Your task to perform on an android device: set default search engine in the chrome app Image 0: 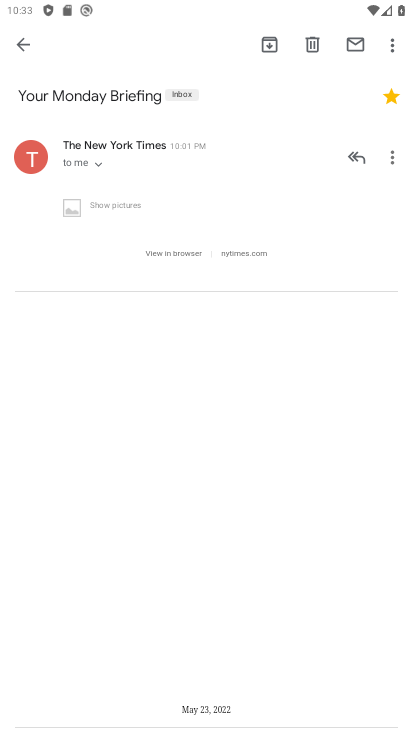
Step 0: press back button
Your task to perform on an android device: set default search engine in the chrome app Image 1: 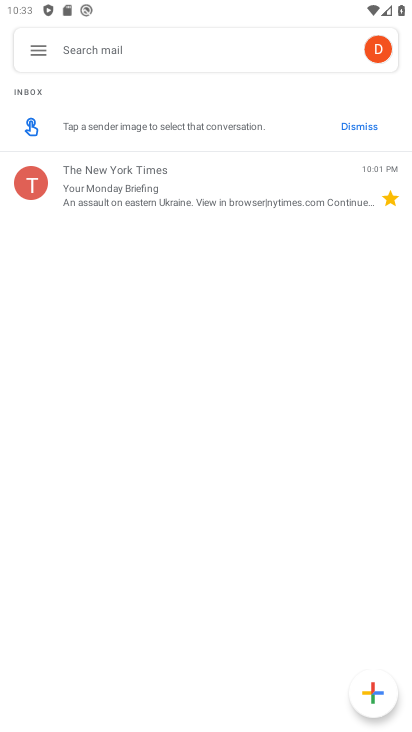
Step 1: press back button
Your task to perform on an android device: set default search engine in the chrome app Image 2: 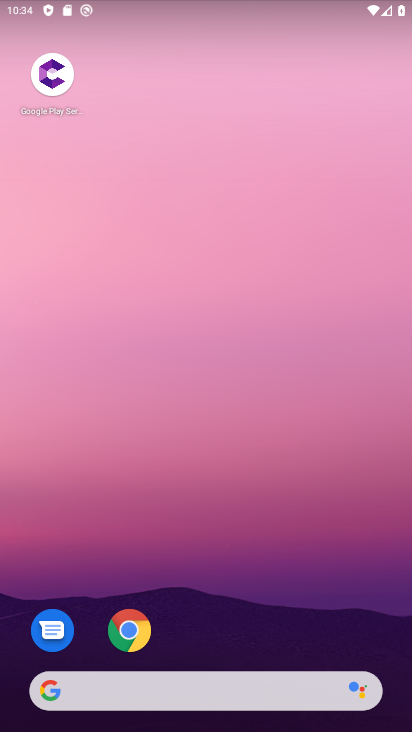
Step 2: click (129, 630)
Your task to perform on an android device: set default search engine in the chrome app Image 3: 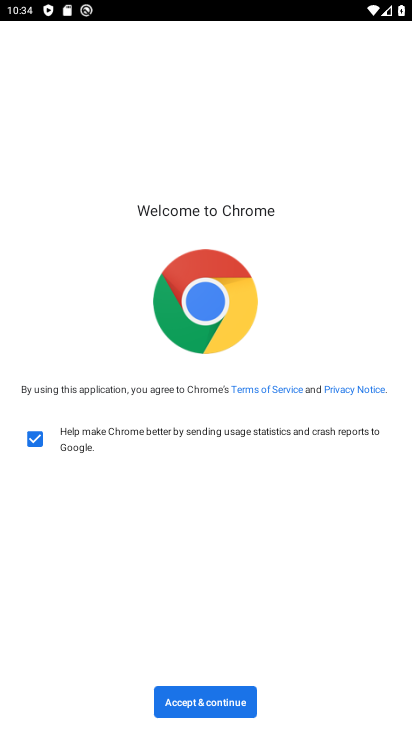
Step 3: click (191, 700)
Your task to perform on an android device: set default search engine in the chrome app Image 4: 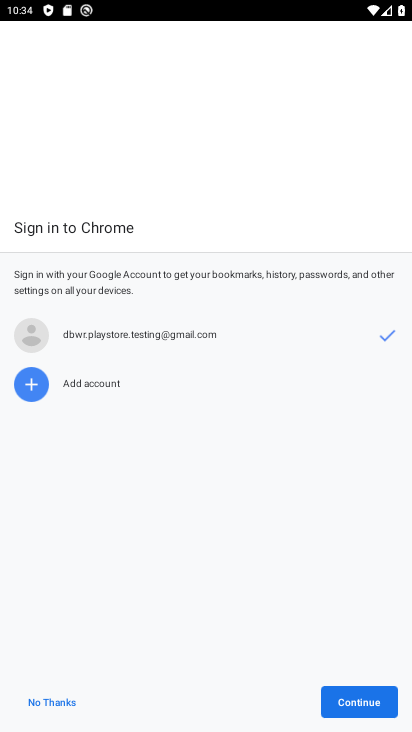
Step 4: click (359, 706)
Your task to perform on an android device: set default search engine in the chrome app Image 5: 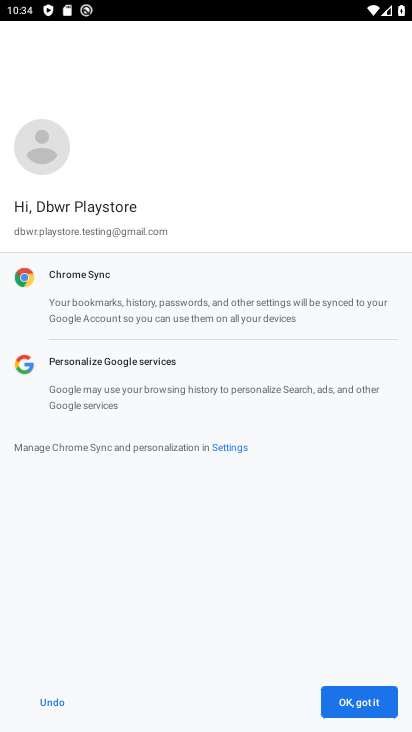
Step 5: click (359, 706)
Your task to perform on an android device: set default search engine in the chrome app Image 6: 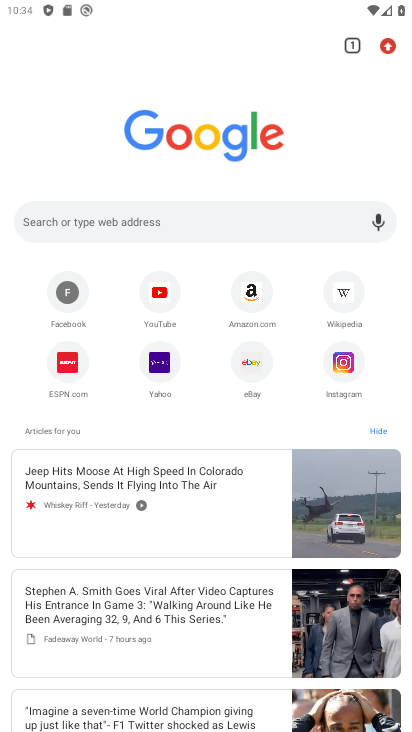
Step 6: click (388, 45)
Your task to perform on an android device: set default search engine in the chrome app Image 7: 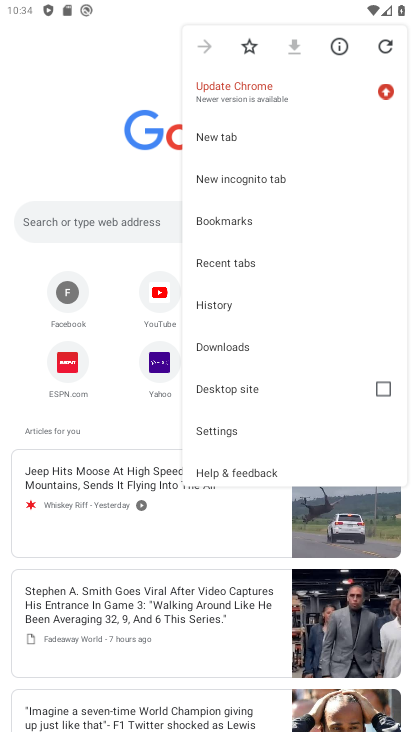
Step 7: drag from (230, 409) to (242, 356)
Your task to perform on an android device: set default search engine in the chrome app Image 8: 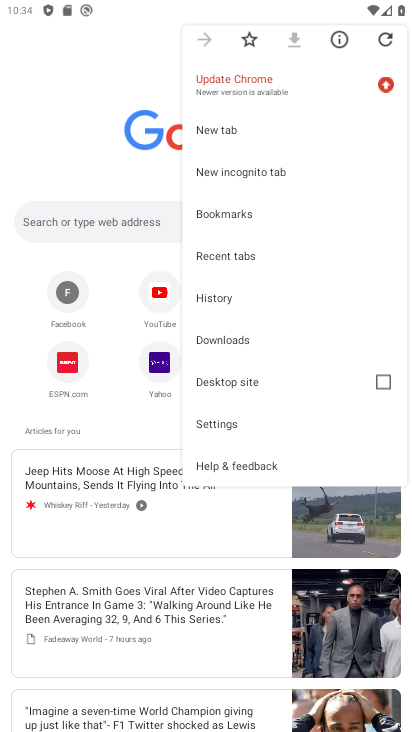
Step 8: click (233, 430)
Your task to perform on an android device: set default search engine in the chrome app Image 9: 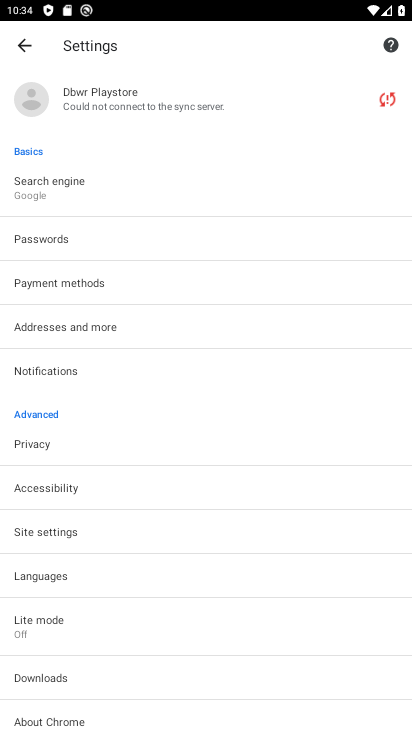
Step 9: click (85, 187)
Your task to perform on an android device: set default search engine in the chrome app Image 10: 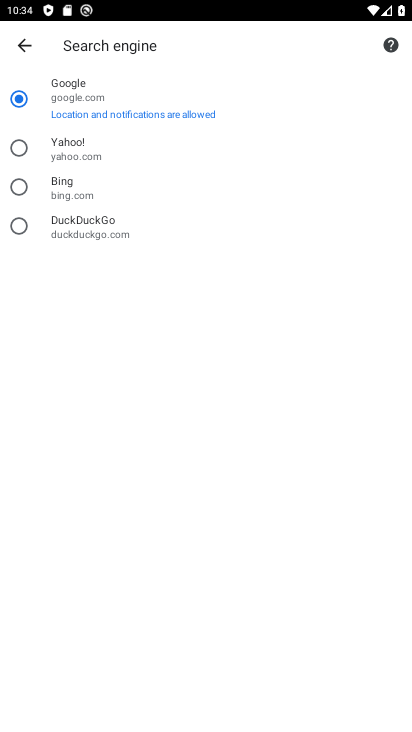
Step 10: click (14, 182)
Your task to perform on an android device: set default search engine in the chrome app Image 11: 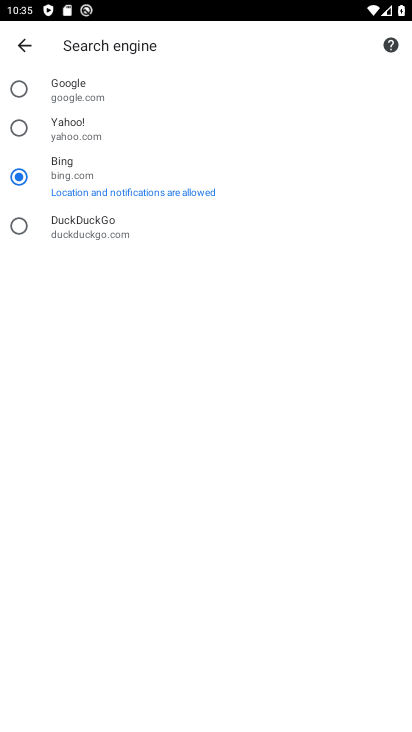
Step 11: task complete